Your task to perform on an android device: open chrome privacy settings Image 0: 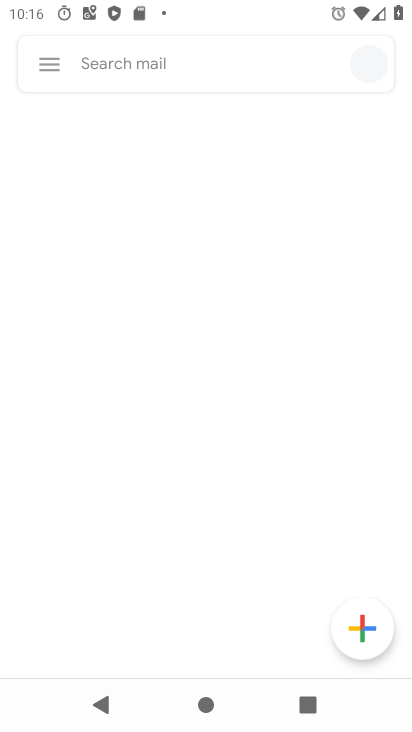
Step 0: drag from (254, 591) to (223, 133)
Your task to perform on an android device: open chrome privacy settings Image 1: 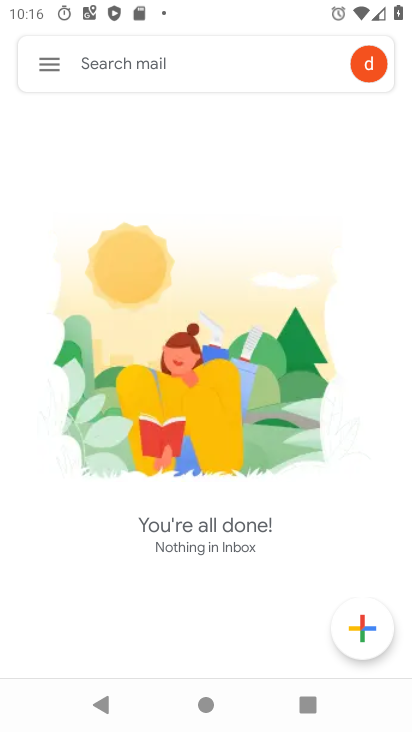
Step 1: press back button
Your task to perform on an android device: open chrome privacy settings Image 2: 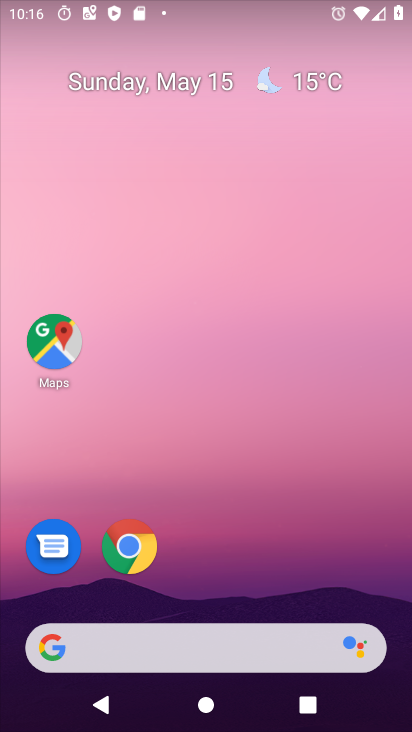
Step 2: drag from (277, 619) to (229, 138)
Your task to perform on an android device: open chrome privacy settings Image 3: 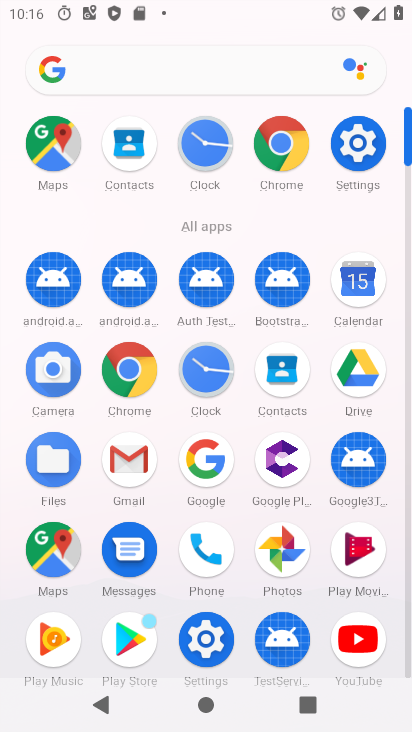
Step 3: click (197, 635)
Your task to perform on an android device: open chrome privacy settings Image 4: 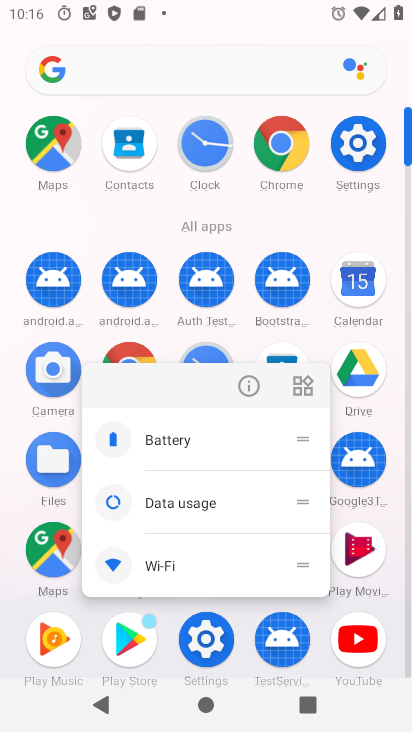
Step 4: click (325, 210)
Your task to perform on an android device: open chrome privacy settings Image 5: 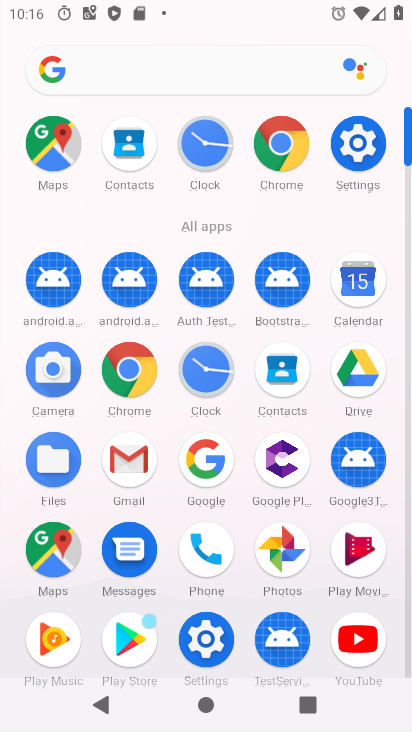
Step 5: click (272, 133)
Your task to perform on an android device: open chrome privacy settings Image 6: 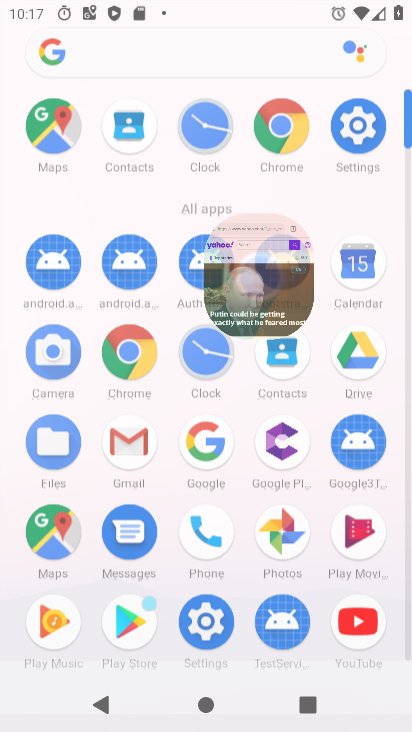
Step 6: click (273, 132)
Your task to perform on an android device: open chrome privacy settings Image 7: 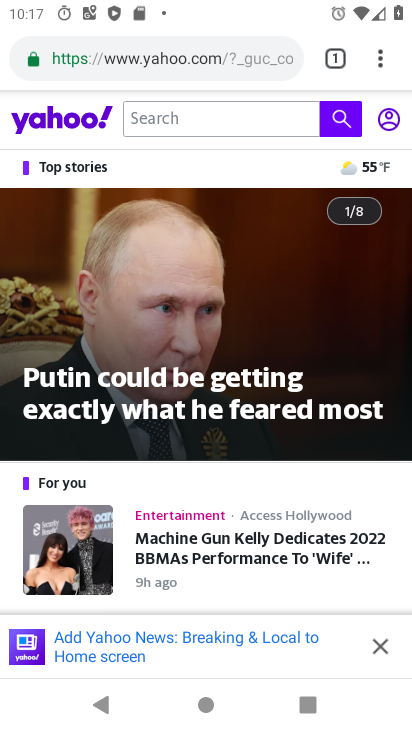
Step 7: click (382, 55)
Your task to perform on an android device: open chrome privacy settings Image 8: 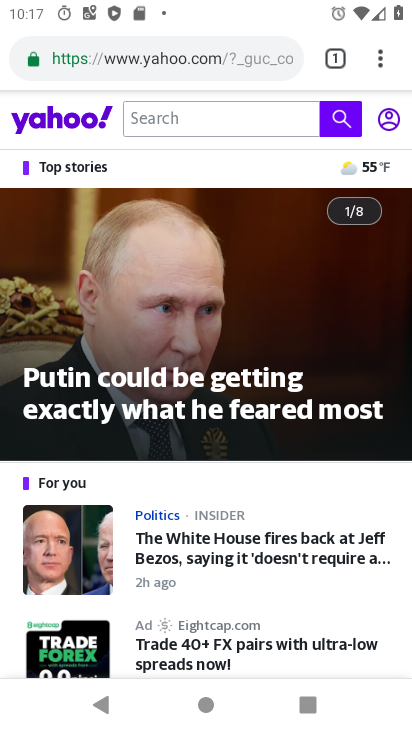
Step 8: drag from (373, 62) to (159, 573)
Your task to perform on an android device: open chrome privacy settings Image 9: 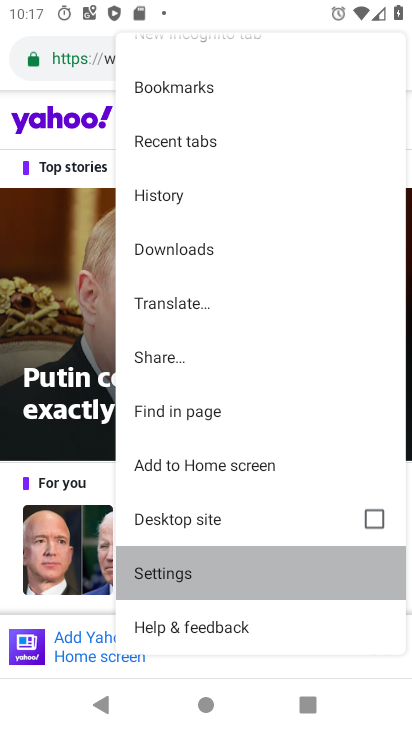
Step 9: click (159, 573)
Your task to perform on an android device: open chrome privacy settings Image 10: 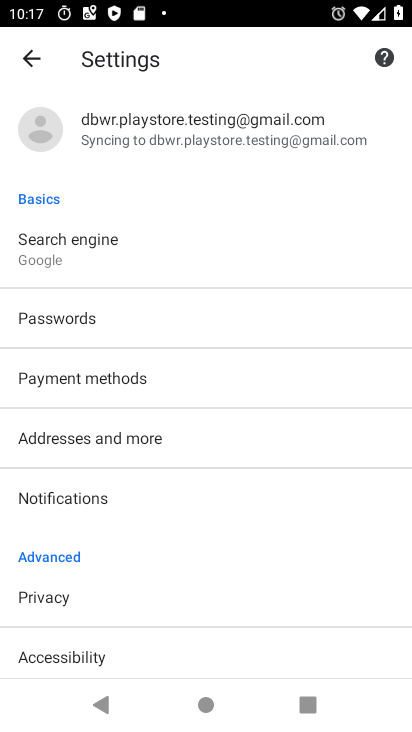
Step 10: drag from (113, 452) to (160, 187)
Your task to perform on an android device: open chrome privacy settings Image 11: 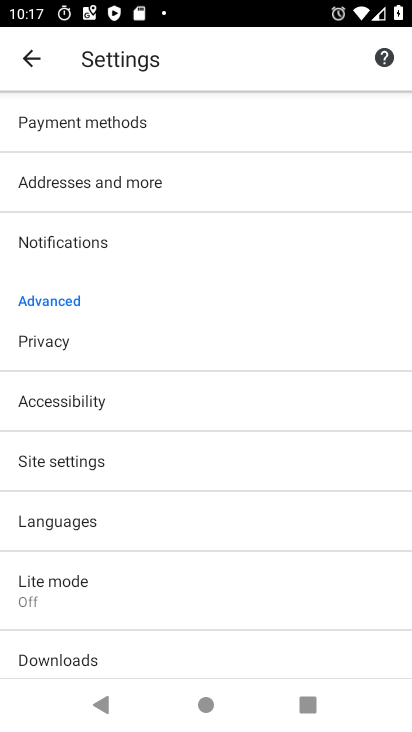
Step 11: click (45, 349)
Your task to perform on an android device: open chrome privacy settings Image 12: 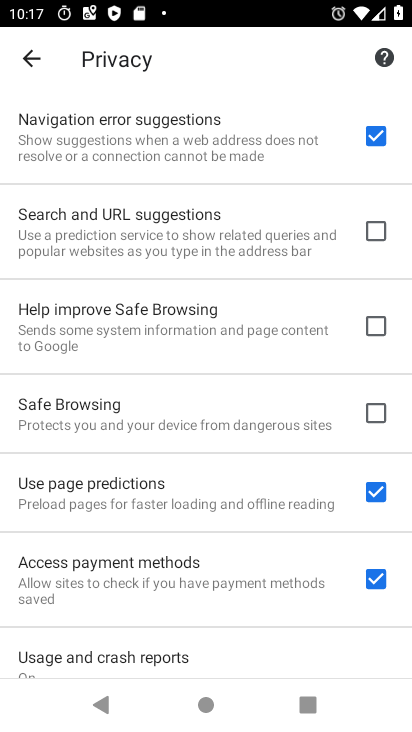
Step 12: task complete